Your task to perform on an android device: turn off notifications in google photos Image 0: 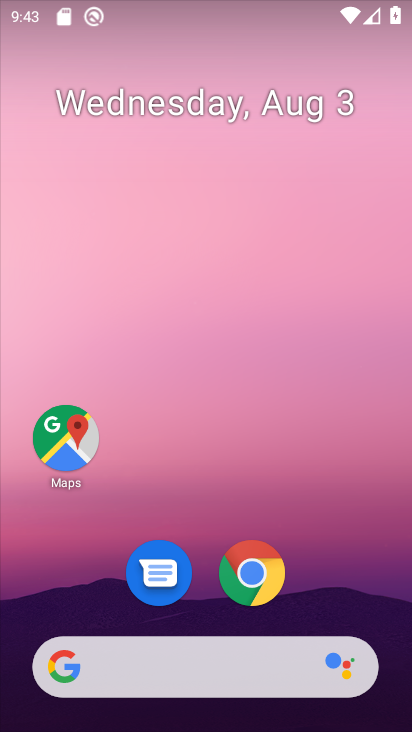
Step 0: drag from (214, 673) to (143, 182)
Your task to perform on an android device: turn off notifications in google photos Image 1: 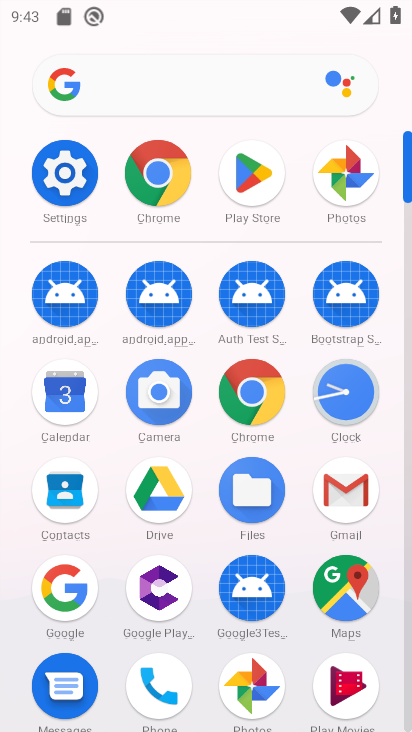
Step 1: click (238, 696)
Your task to perform on an android device: turn off notifications in google photos Image 2: 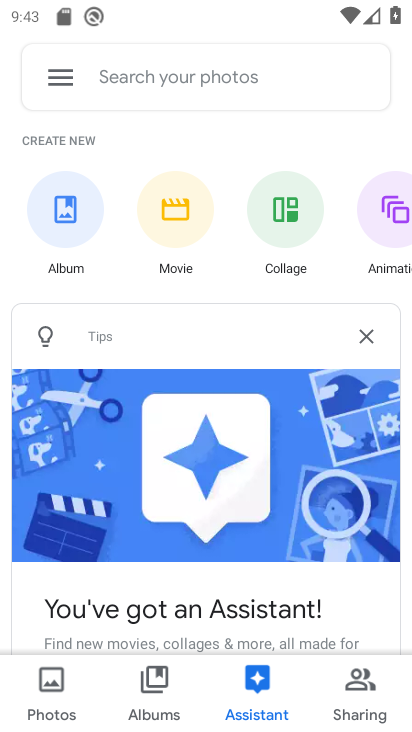
Step 2: click (60, 84)
Your task to perform on an android device: turn off notifications in google photos Image 3: 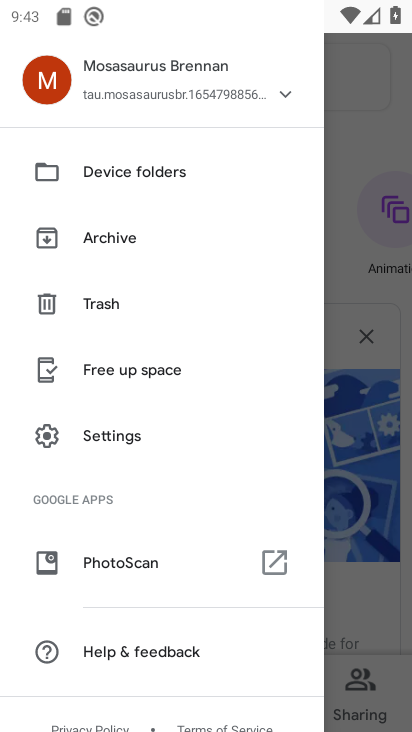
Step 3: drag from (139, 630) to (136, 141)
Your task to perform on an android device: turn off notifications in google photos Image 4: 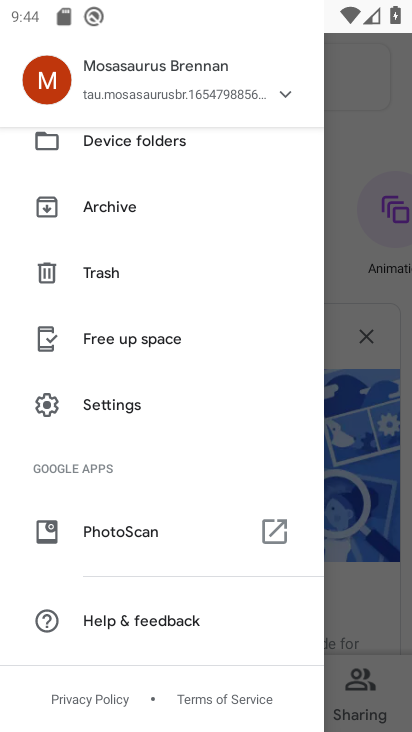
Step 4: click (85, 398)
Your task to perform on an android device: turn off notifications in google photos Image 5: 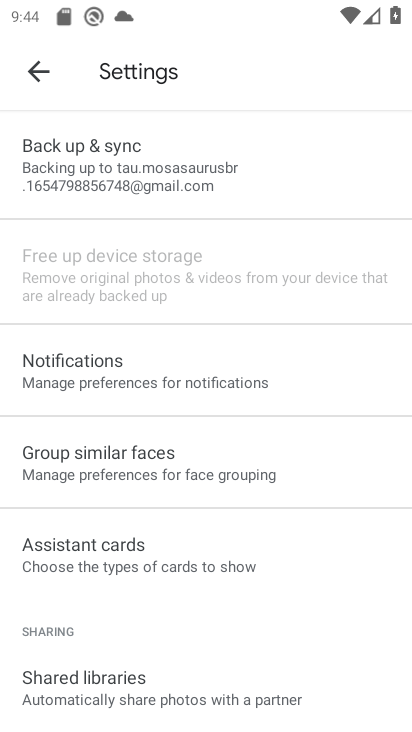
Step 5: click (146, 372)
Your task to perform on an android device: turn off notifications in google photos Image 6: 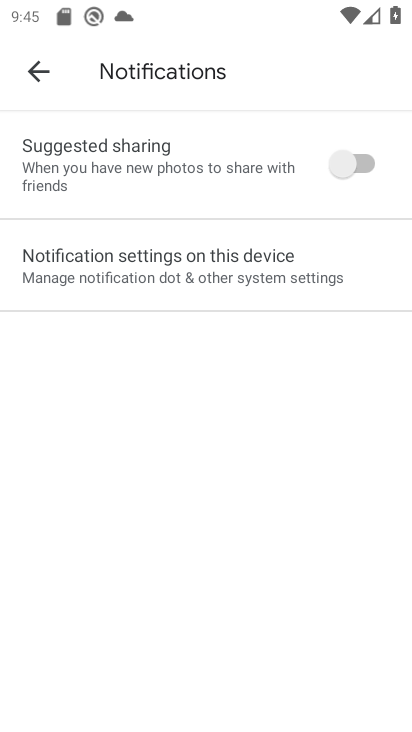
Step 6: click (197, 257)
Your task to perform on an android device: turn off notifications in google photos Image 7: 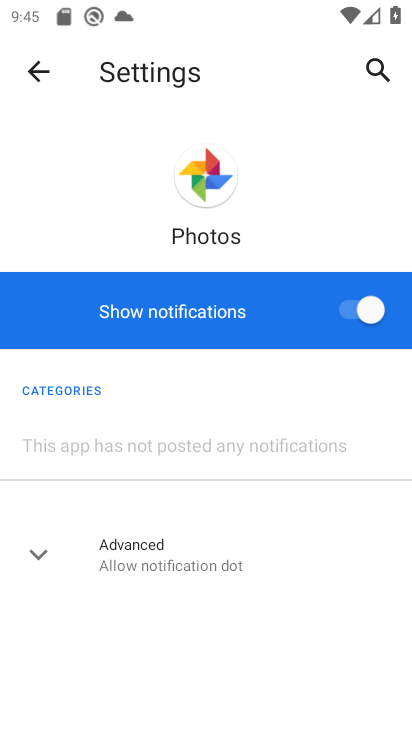
Step 7: click (354, 308)
Your task to perform on an android device: turn off notifications in google photos Image 8: 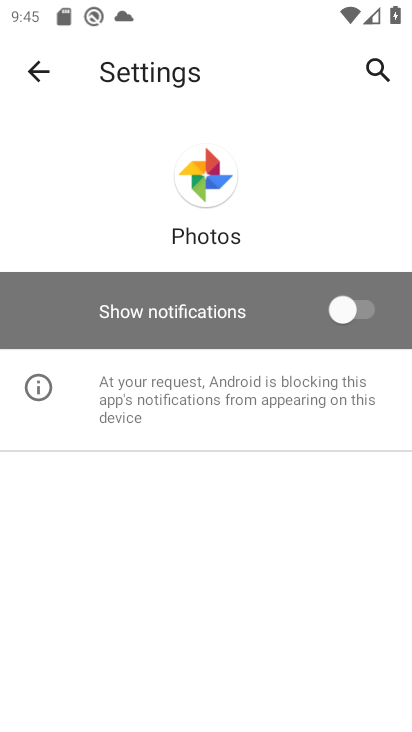
Step 8: task complete